Your task to perform on an android device: see creations saved in the google photos Image 0: 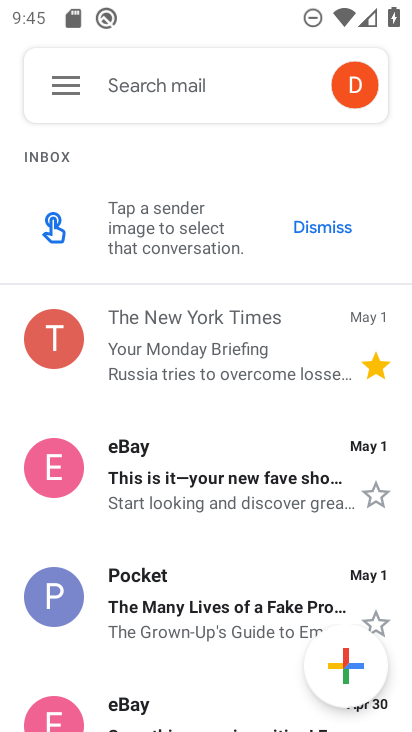
Step 0: press home button
Your task to perform on an android device: see creations saved in the google photos Image 1: 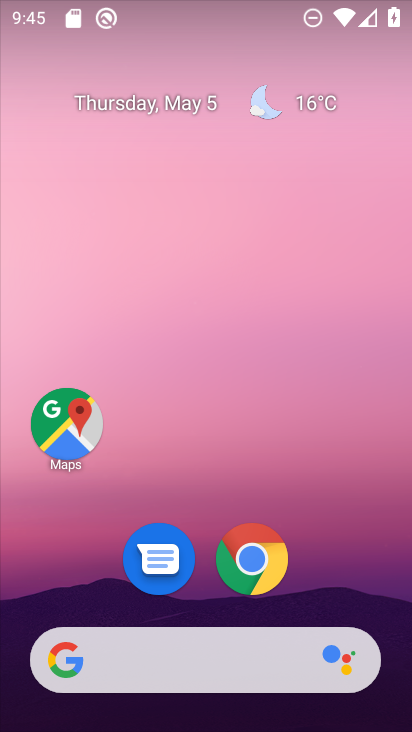
Step 1: drag from (374, 587) to (383, 9)
Your task to perform on an android device: see creations saved in the google photos Image 2: 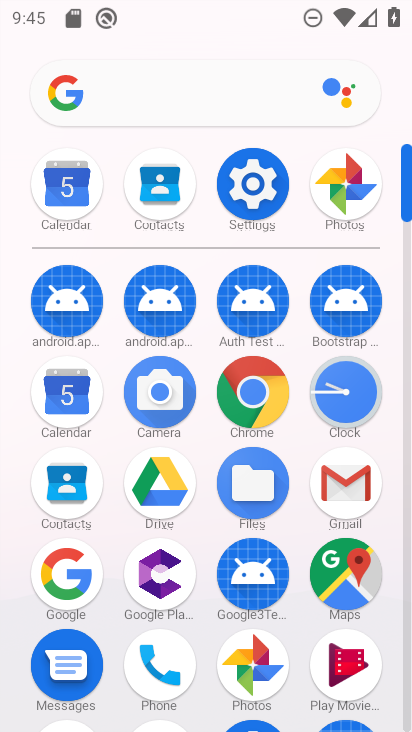
Step 2: click (345, 190)
Your task to perform on an android device: see creations saved in the google photos Image 3: 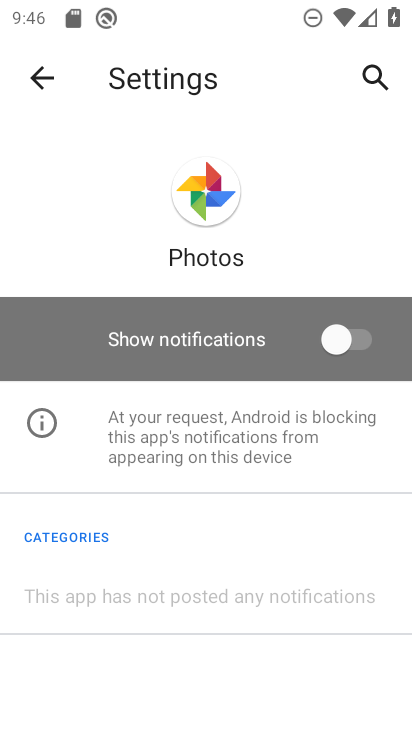
Step 3: click (49, 88)
Your task to perform on an android device: see creations saved in the google photos Image 4: 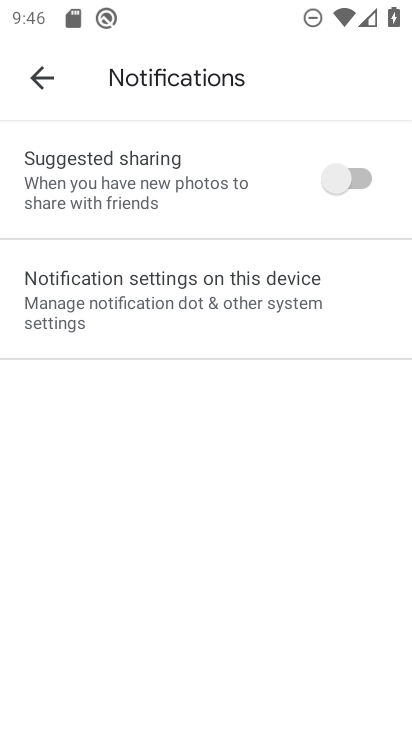
Step 4: click (35, 86)
Your task to perform on an android device: see creations saved in the google photos Image 5: 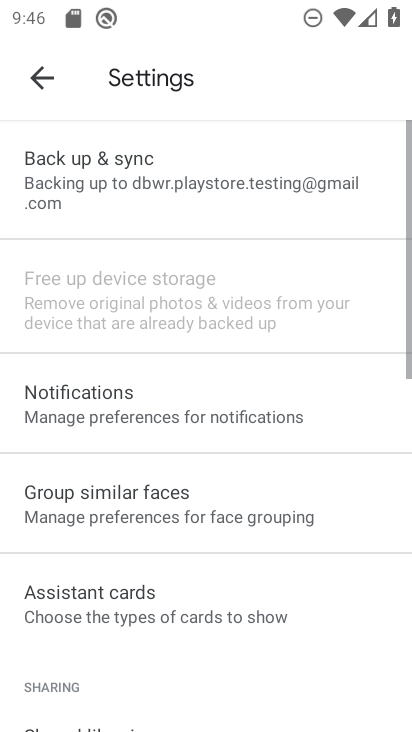
Step 5: click (35, 86)
Your task to perform on an android device: see creations saved in the google photos Image 6: 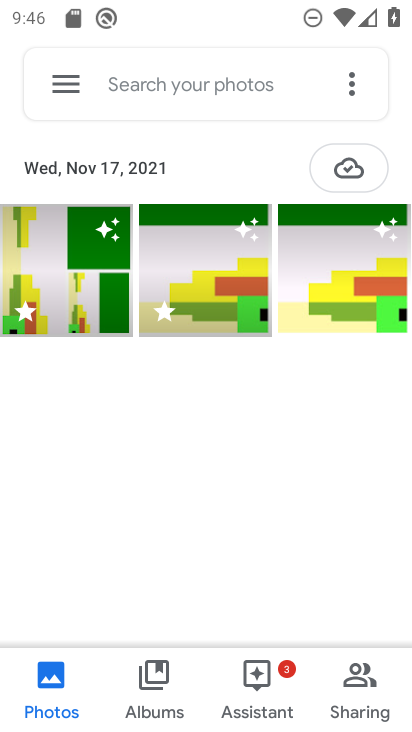
Step 6: click (133, 82)
Your task to perform on an android device: see creations saved in the google photos Image 7: 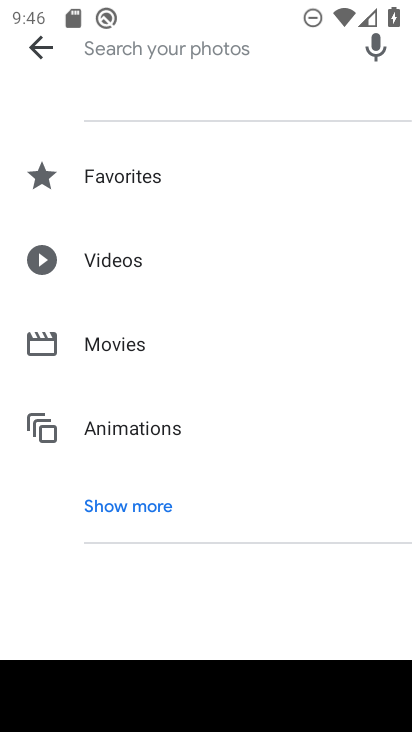
Step 7: click (102, 521)
Your task to perform on an android device: see creations saved in the google photos Image 8: 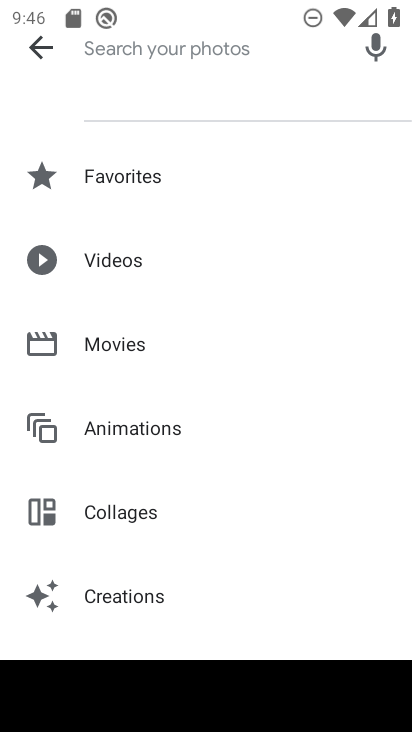
Step 8: click (108, 593)
Your task to perform on an android device: see creations saved in the google photos Image 9: 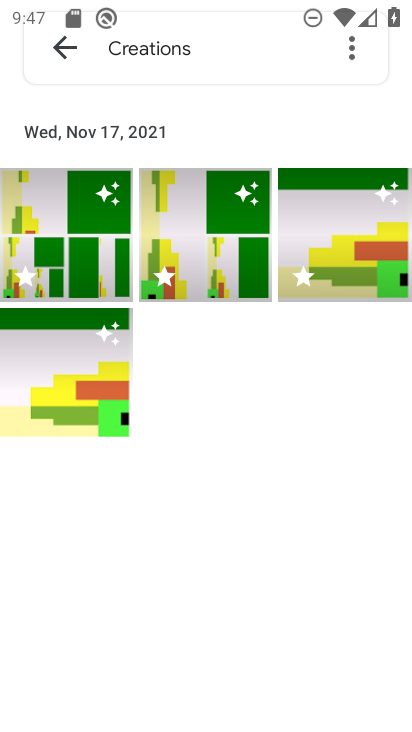
Step 9: task complete